Your task to perform on an android device: Open notification settings Image 0: 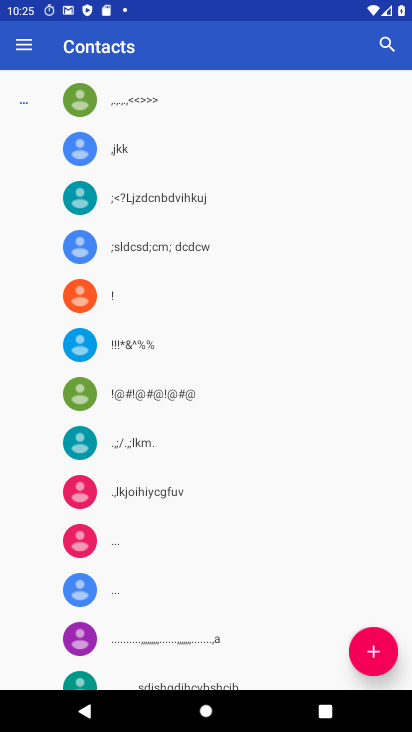
Step 0: press back button
Your task to perform on an android device: Open notification settings Image 1: 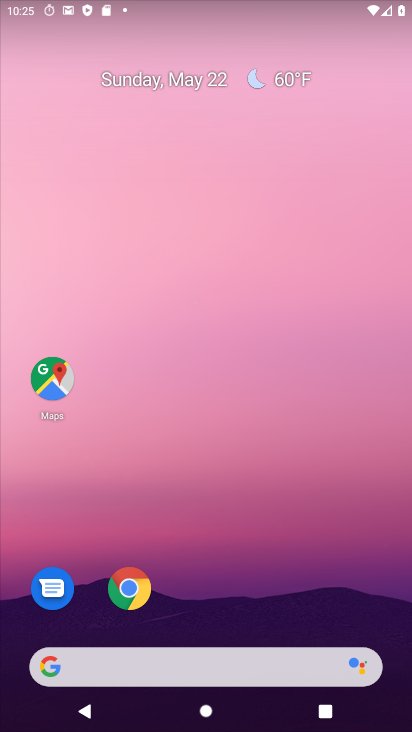
Step 1: drag from (248, 591) to (254, 87)
Your task to perform on an android device: Open notification settings Image 2: 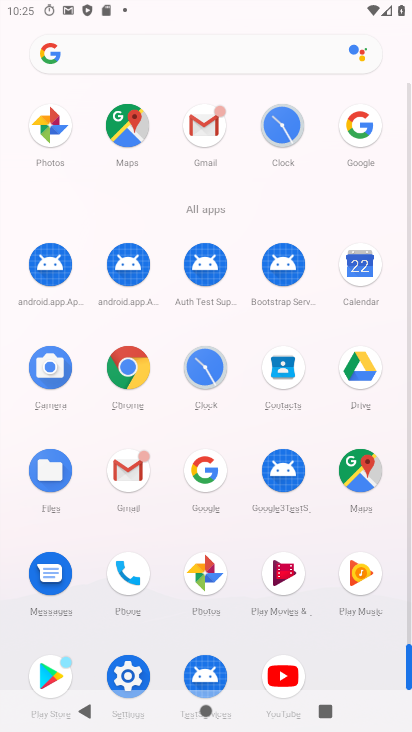
Step 2: drag from (253, 583) to (252, 444)
Your task to perform on an android device: Open notification settings Image 3: 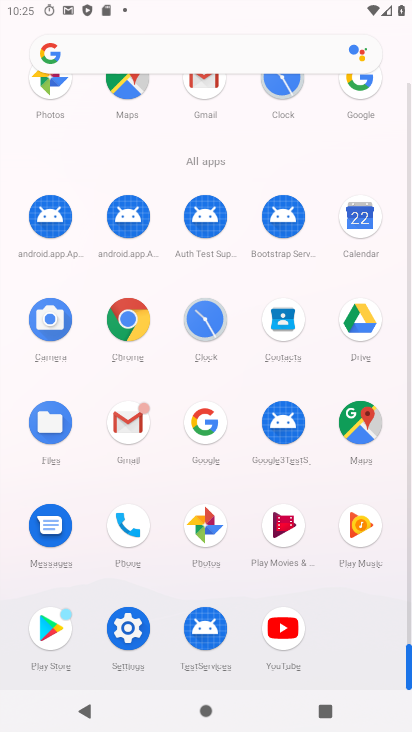
Step 3: click (127, 629)
Your task to perform on an android device: Open notification settings Image 4: 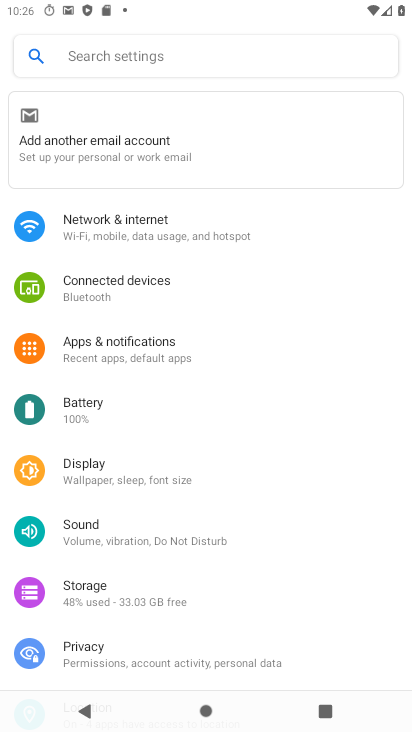
Step 4: drag from (151, 578) to (172, 499)
Your task to perform on an android device: Open notification settings Image 5: 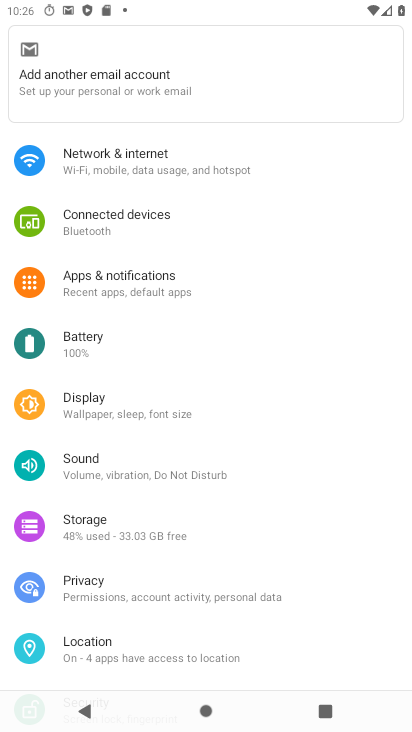
Step 5: click (163, 284)
Your task to perform on an android device: Open notification settings Image 6: 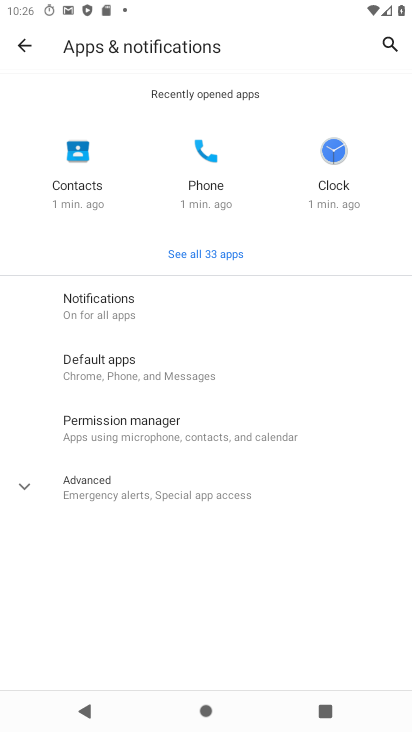
Step 6: click (106, 306)
Your task to perform on an android device: Open notification settings Image 7: 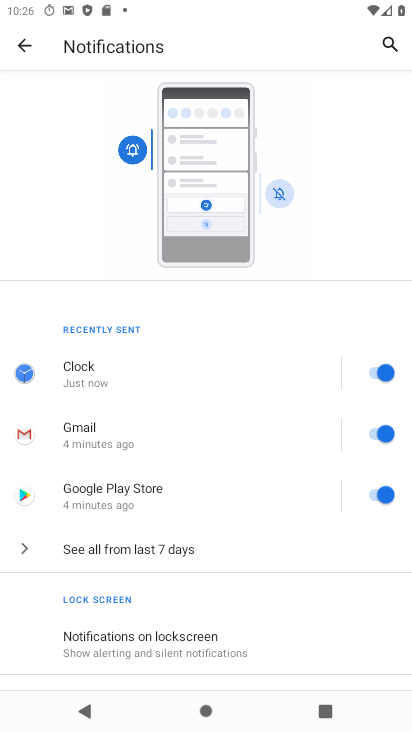
Step 7: task complete